Your task to perform on an android device: see sites visited before in the chrome app Image 0: 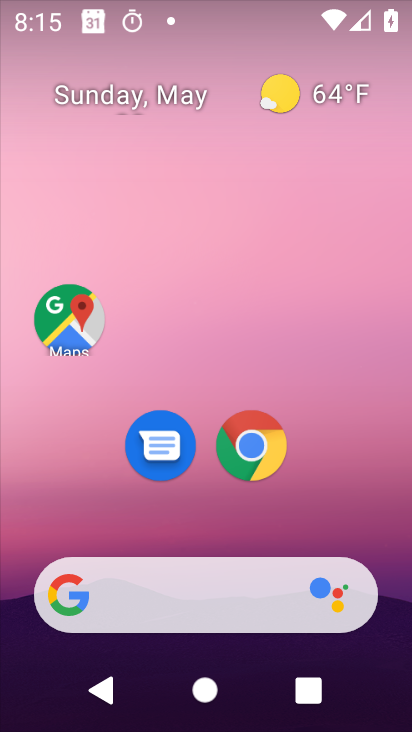
Step 0: drag from (218, 539) to (226, 139)
Your task to perform on an android device: see sites visited before in the chrome app Image 1: 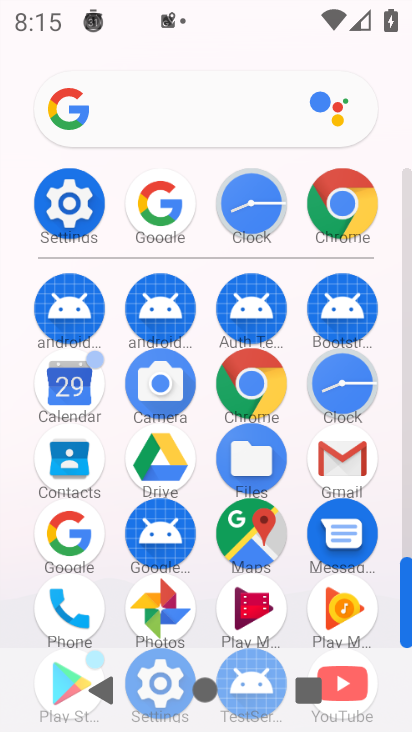
Step 1: click (344, 191)
Your task to perform on an android device: see sites visited before in the chrome app Image 2: 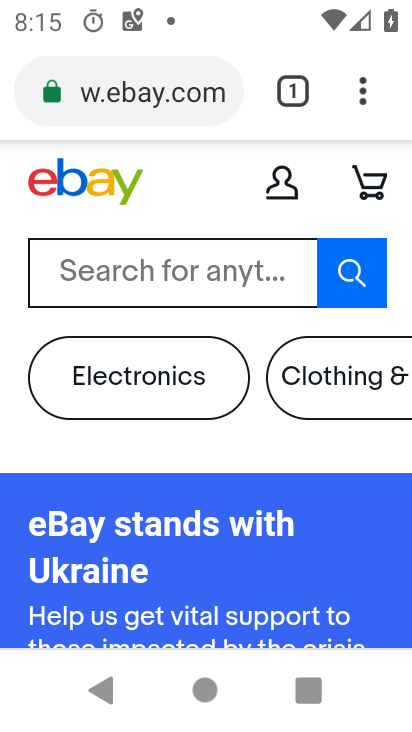
Step 2: drag from (251, 580) to (292, 162)
Your task to perform on an android device: see sites visited before in the chrome app Image 3: 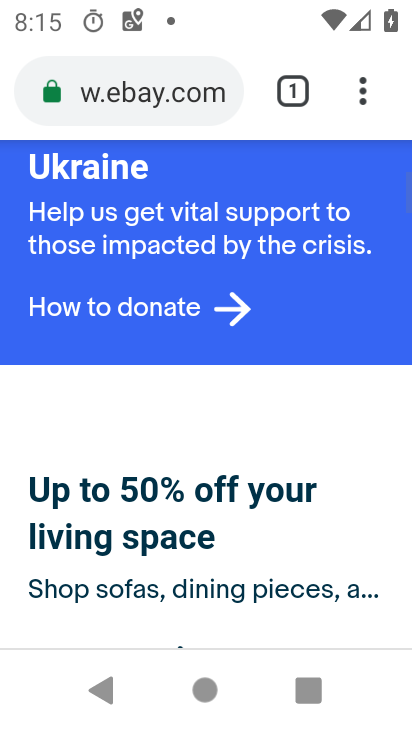
Step 3: drag from (276, 183) to (364, 34)
Your task to perform on an android device: see sites visited before in the chrome app Image 4: 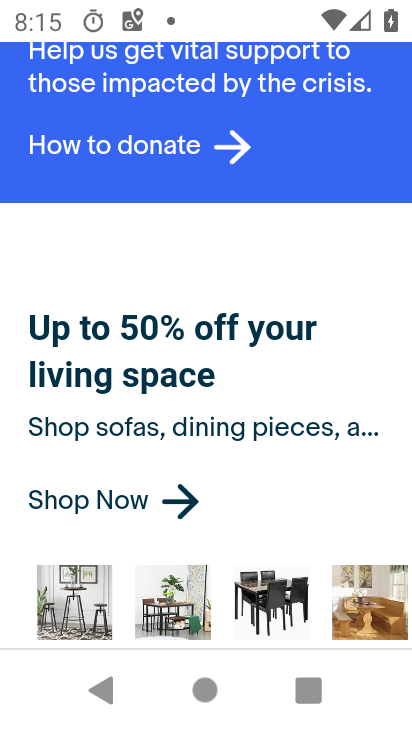
Step 4: drag from (217, 510) to (365, 131)
Your task to perform on an android device: see sites visited before in the chrome app Image 5: 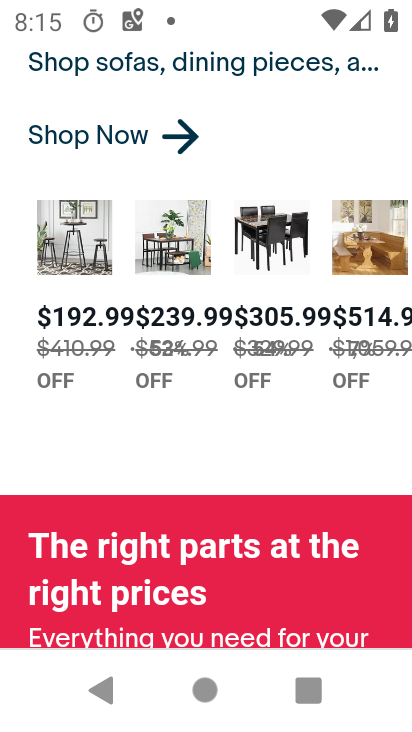
Step 5: drag from (246, 442) to (407, 44)
Your task to perform on an android device: see sites visited before in the chrome app Image 6: 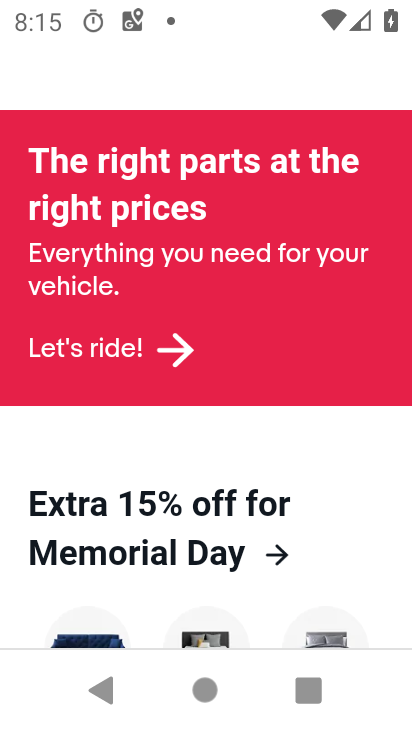
Step 6: drag from (312, 170) to (319, 707)
Your task to perform on an android device: see sites visited before in the chrome app Image 7: 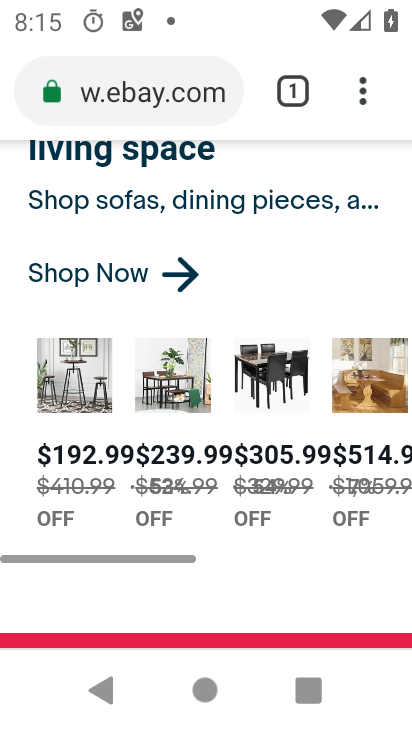
Step 7: drag from (236, 218) to (217, 725)
Your task to perform on an android device: see sites visited before in the chrome app Image 8: 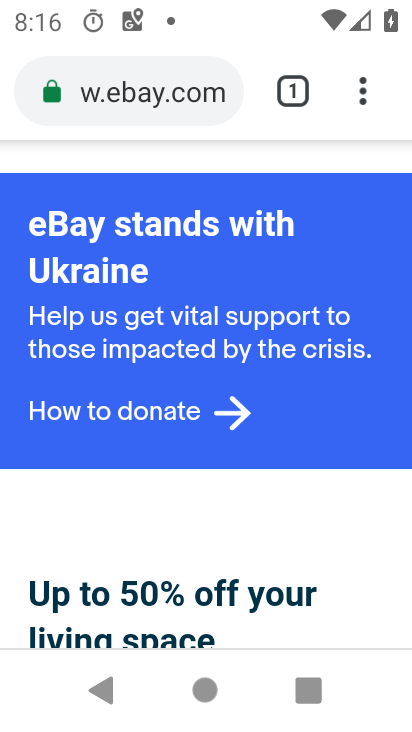
Step 8: click (354, 94)
Your task to perform on an android device: see sites visited before in the chrome app Image 9: 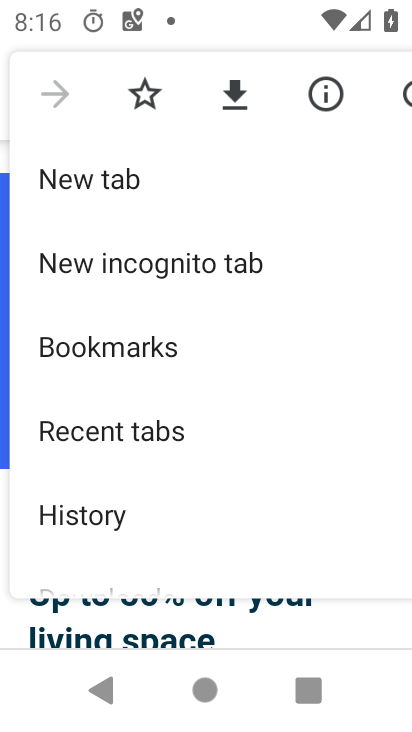
Step 9: click (146, 346)
Your task to perform on an android device: see sites visited before in the chrome app Image 10: 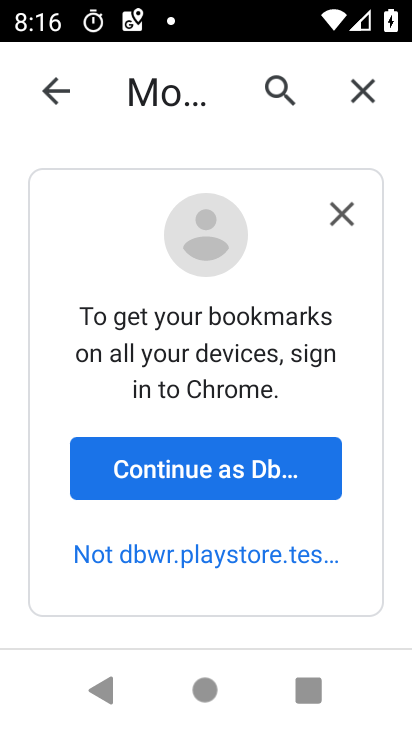
Step 10: task complete